Your task to perform on an android device: clear history in the chrome app Image 0: 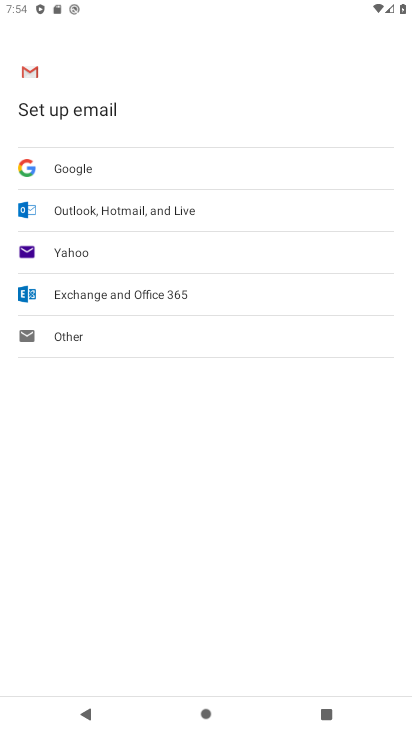
Step 0: press home button
Your task to perform on an android device: clear history in the chrome app Image 1: 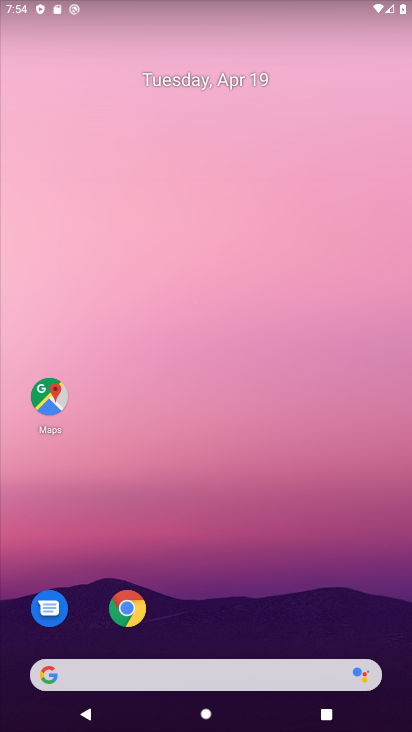
Step 1: click (125, 609)
Your task to perform on an android device: clear history in the chrome app Image 2: 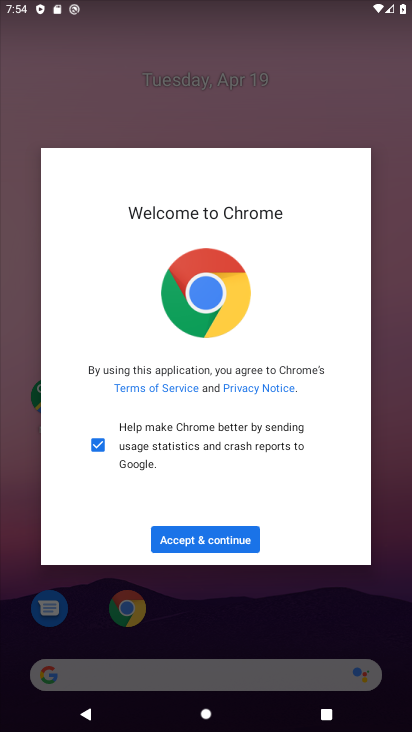
Step 2: click (214, 539)
Your task to perform on an android device: clear history in the chrome app Image 3: 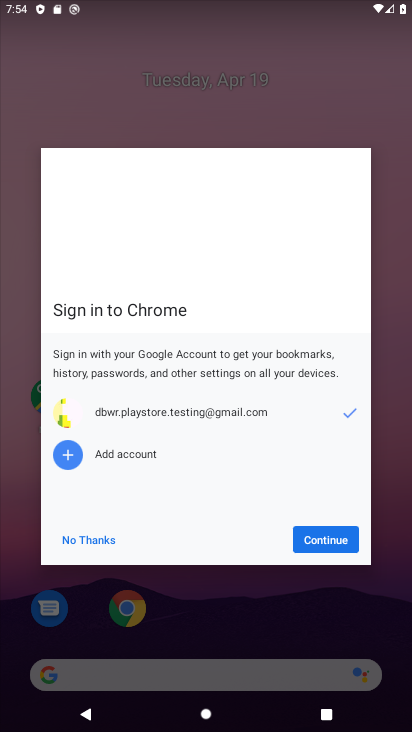
Step 3: click (309, 543)
Your task to perform on an android device: clear history in the chrome app Image 4: 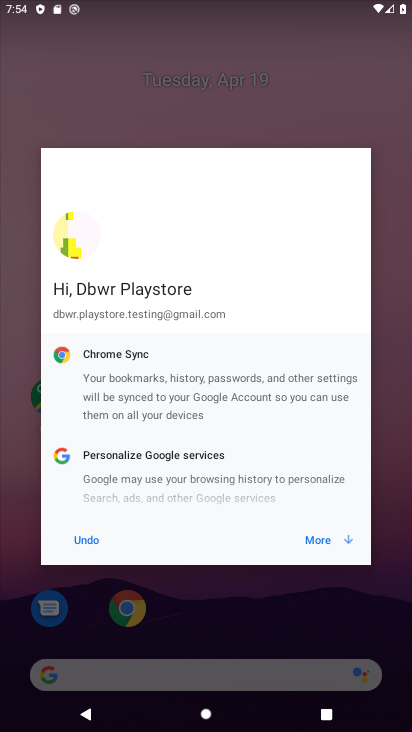
Step 4: click (312, 541)
Your task to perform on an android device: clear history in the chrome app Image 5: 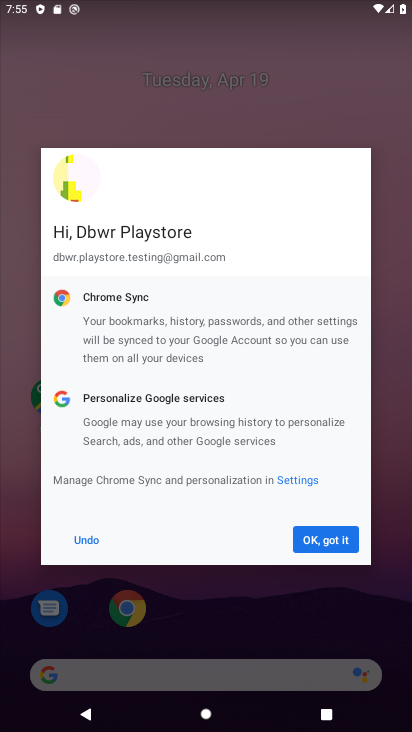
Step 5: click (312, 541)
Your task to perform on an android device: clear history in the chrome app Image 6: 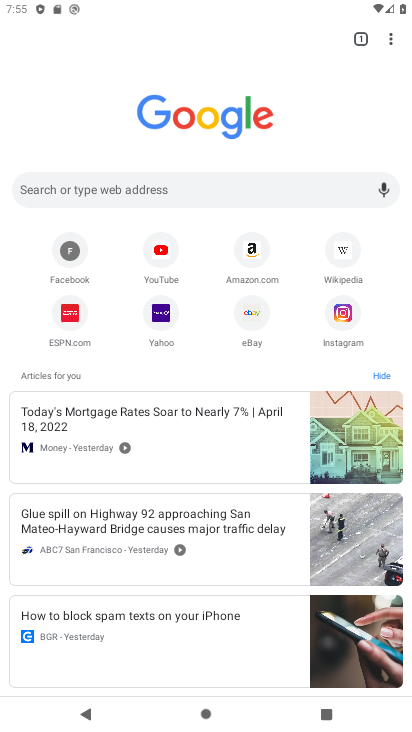
Step 6: click (391, 36)
Your task to perform on an android device: clear history in the chrome app Image 7: 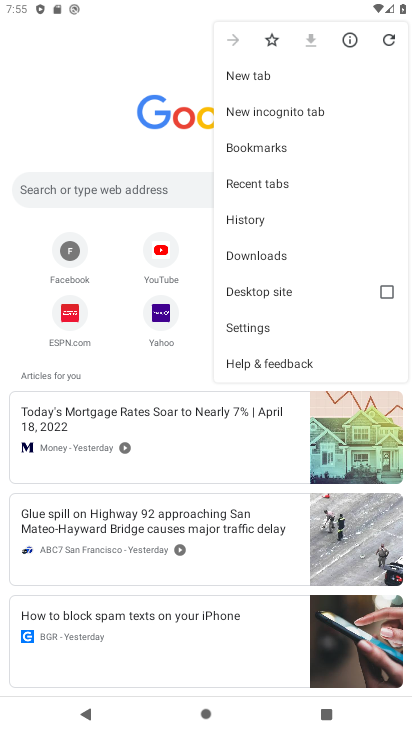
Step 7: click (248, 222)
Your task to perform on an android device: clear history in the chrome app Image 8: 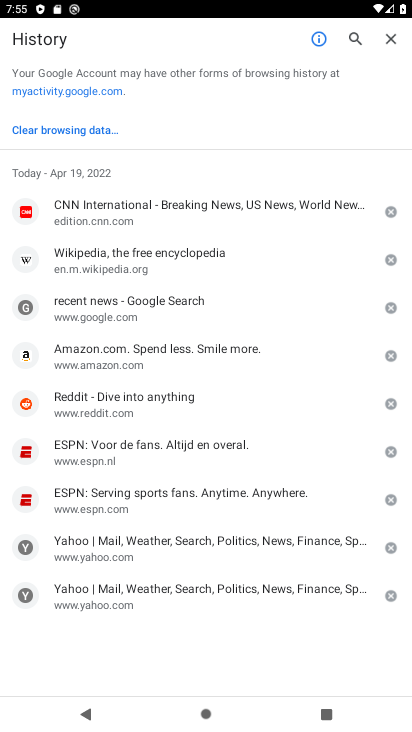
Step 8: click (96, 128)
Your task to perform on an android device: clear history in the chrome app Image 9: 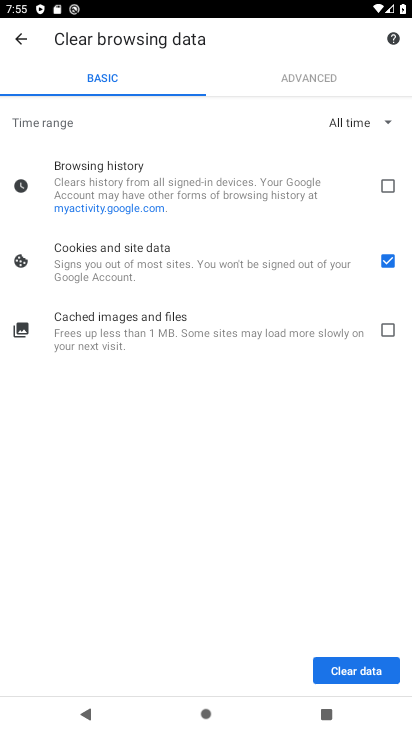
Step 9: click (387, 184)
Your task to perform on an android device: clear history in the chrome app Image 10: 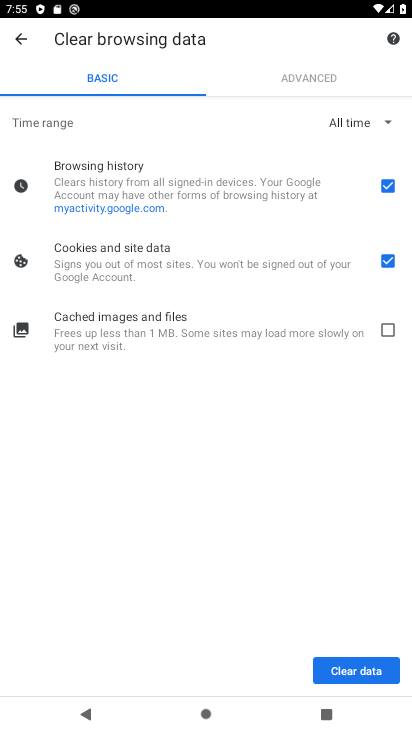
Step 10: click (355, 673)
Your task to perform on an android device: clear history in the chrome app Image 11: 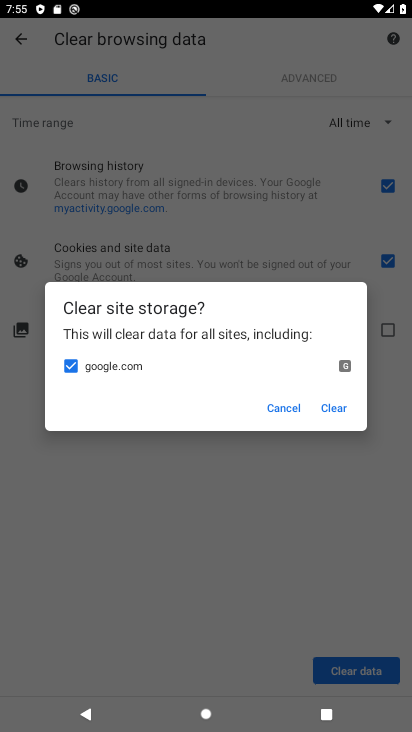
Step 11: click (329, 410)
Your task to perform on an android device: clear history in the chrome app Image 12: 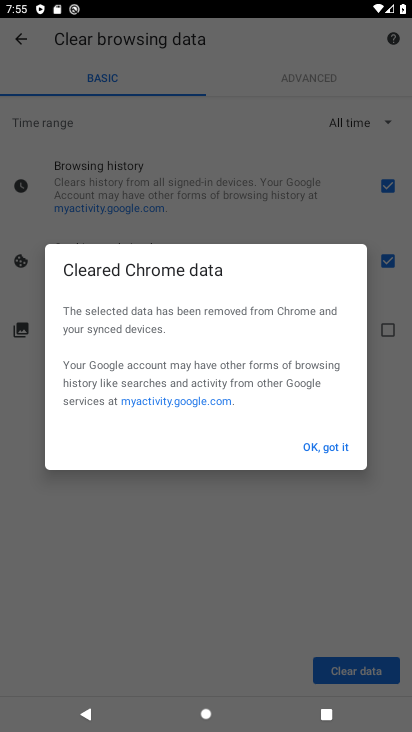
Step 12: click (331, 445)
Your task to perform on an android device: clear history in the chrome app Image 13: 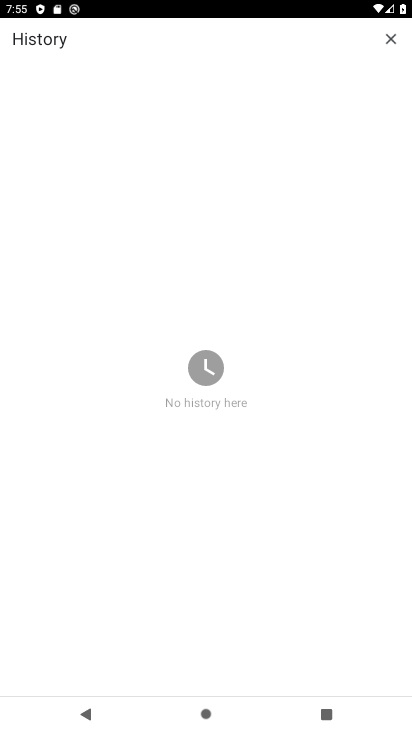
Step 13: task complete